Your task to perform on an android device: turn off airplane mode Image 0: 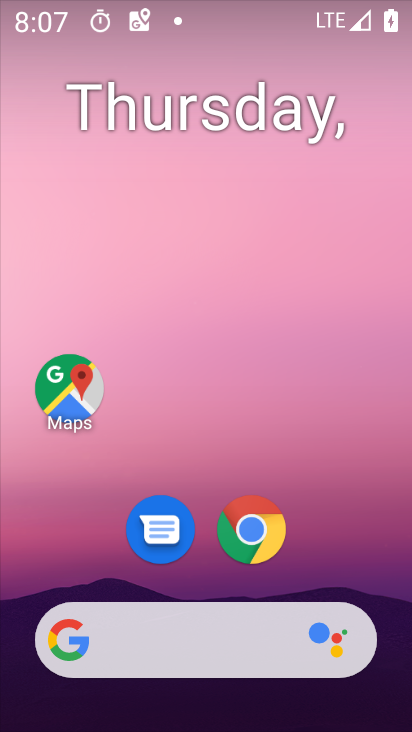
Step 0: drag from (377, 571) to (376, 232)
Your task to perform on an android device: turn off airplane mode Image 1: 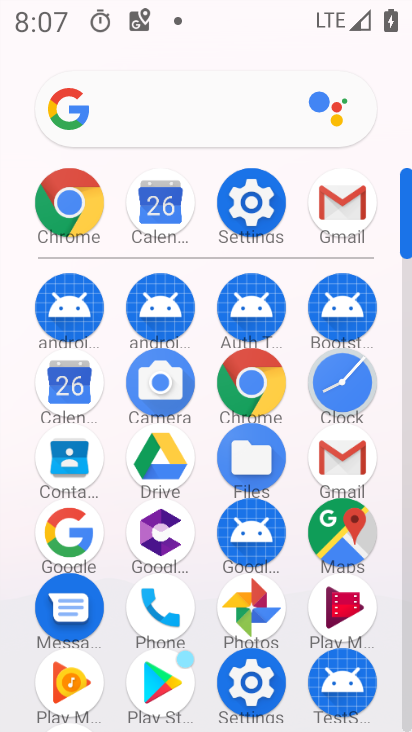
Step 1: click (256, 221)
Your task to perform on an android device: turn off airplane mode Image 2: 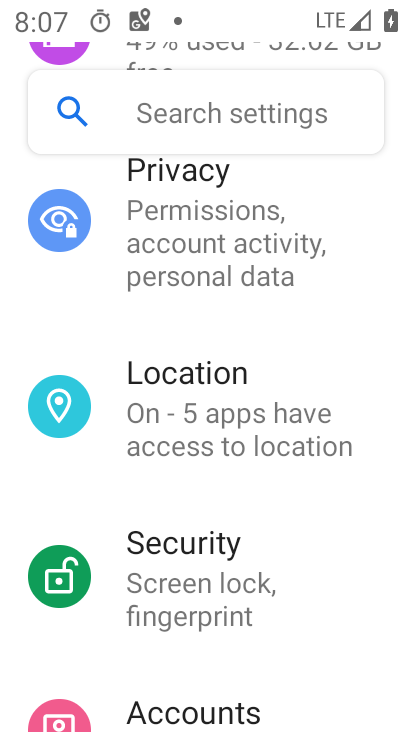
Step 2: drag from (364, 212) to (357, 355)
Your task to perform on an android device: turn off airplane mode Image 3: 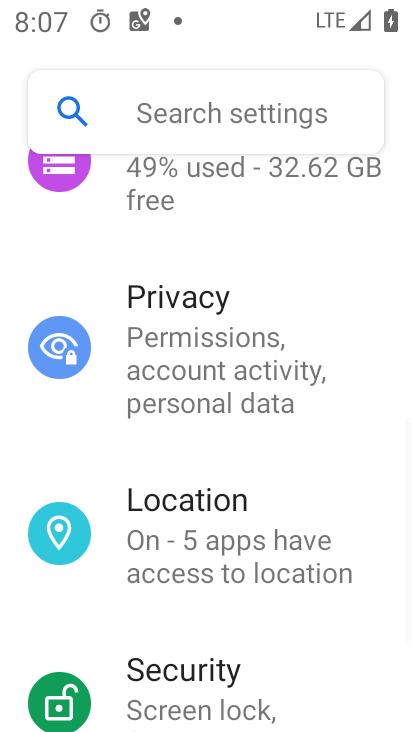
Step 3: drag from (354, 244) to (355, 359)
Your task to perform on an android device: turn off airplane mode Image 4: 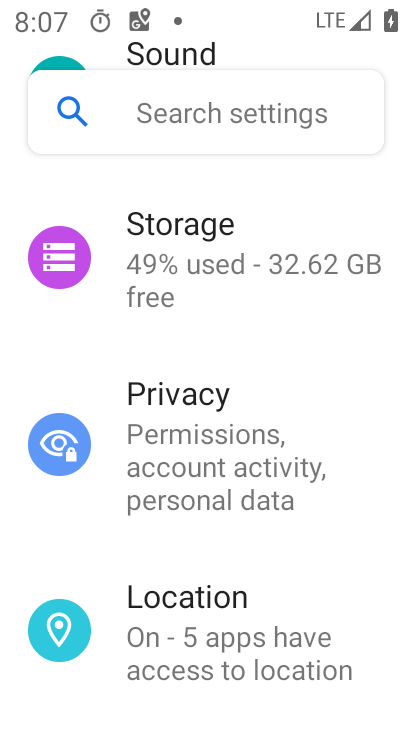
Step 4: drag from (335, 191) to (329, 295)
Your task to perform on an android device: turn off airplane mode Image 5: 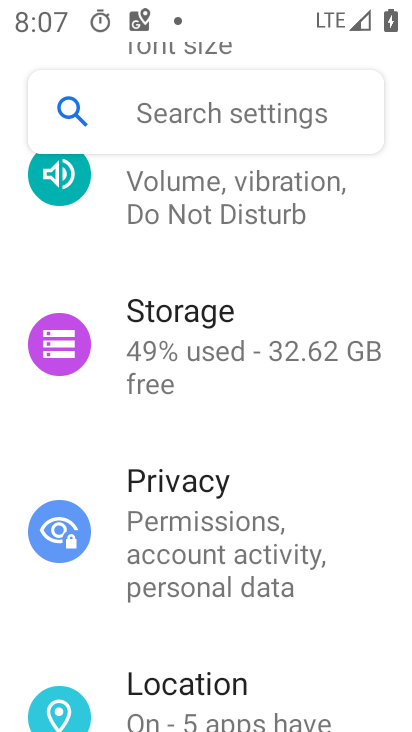
Step 5: drag from (339, 218) to (340, 336)
Your task to perform on an android device: turn off airplane mode Image 6: 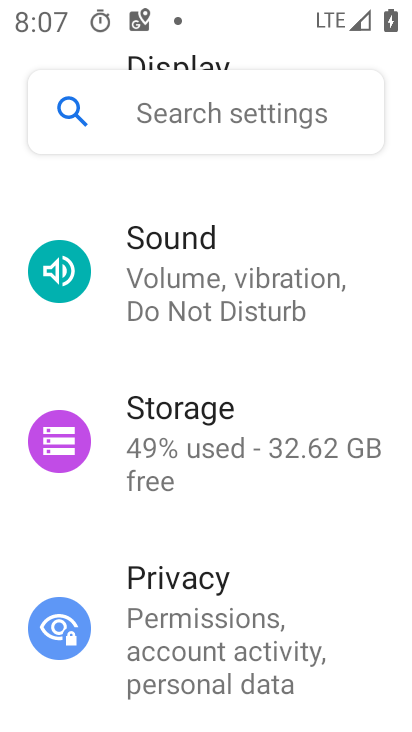
Step 6: drag from (358, 217) to (352, 341)
Your task to perform on an android device: turn off airplane mode Image 7: 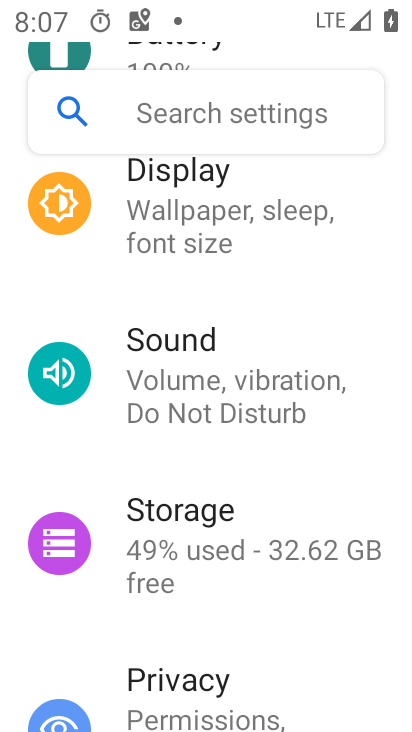
Step 7: drag from (359, 192) to (356, 314)
Your task to perform on an android device: turn off airplane mode Image 8: 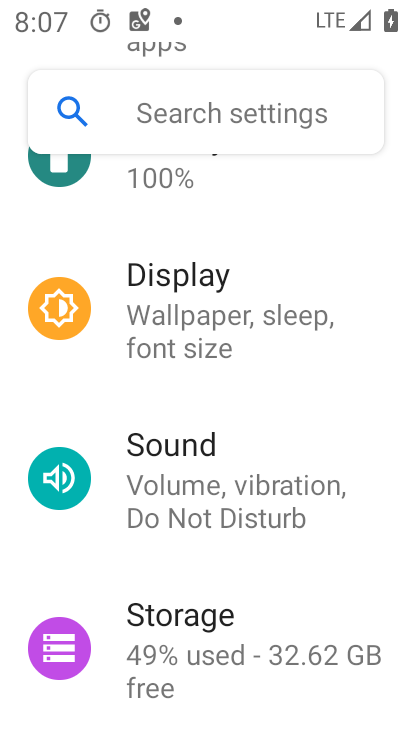
Step 8: drag from (359, 217) to (364, 333)
Your task to perform on an android device: turn off airplane mode Image 9: 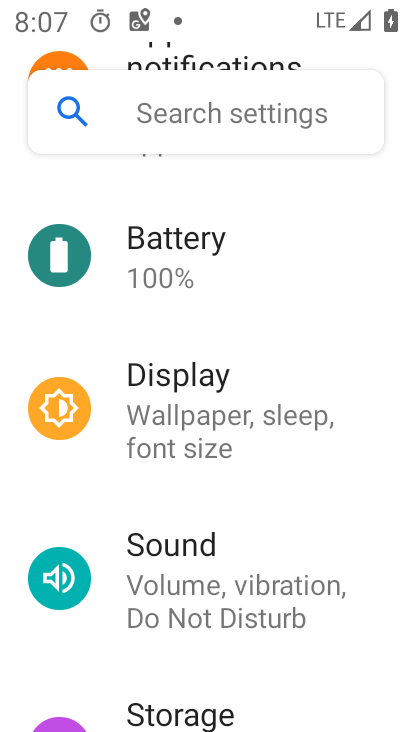
Step 9: drag from (354, 212) to (360, 328)
Your task to perform on an android device: turn off airplane mode Image 10: 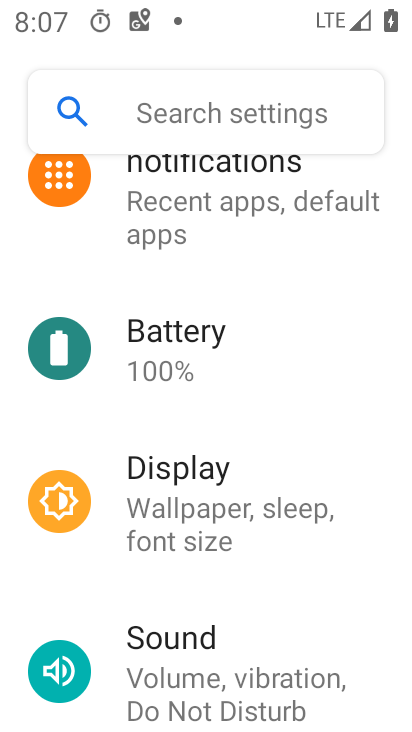
Step 10: drag from (369, 173) to (369, 323)
Your task to perform on an android device: turn off airplane mode Image 11: 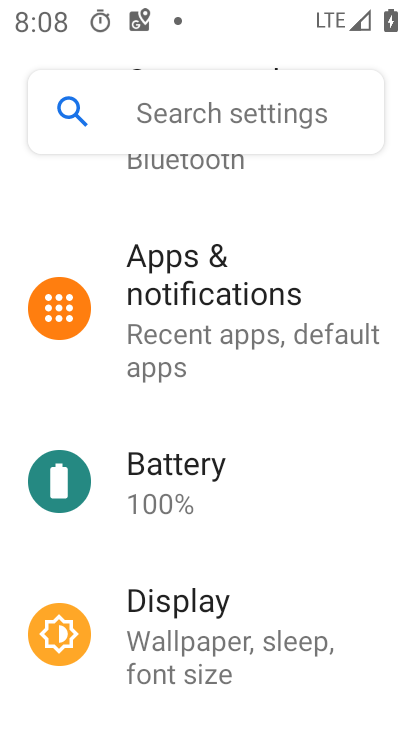
Step 11: drag from (372, 187) to (373, 326)
Your task to perform on an android device: turn off airplane mode Image 12: 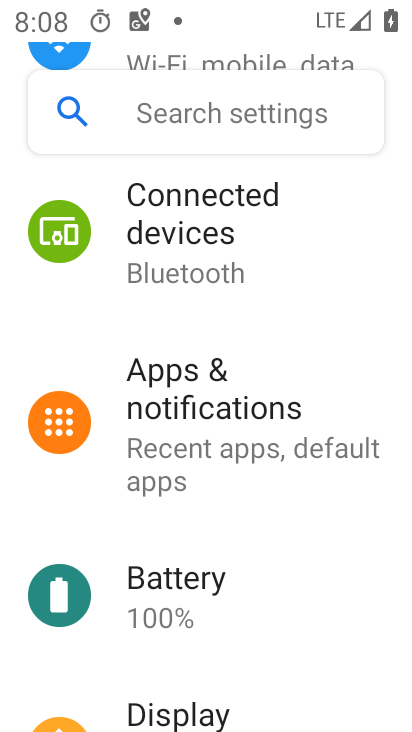
Step 12: drag from (369, 189) to (370, 321)
Your task to perform on an android device: turn off airplane mode Image 13: 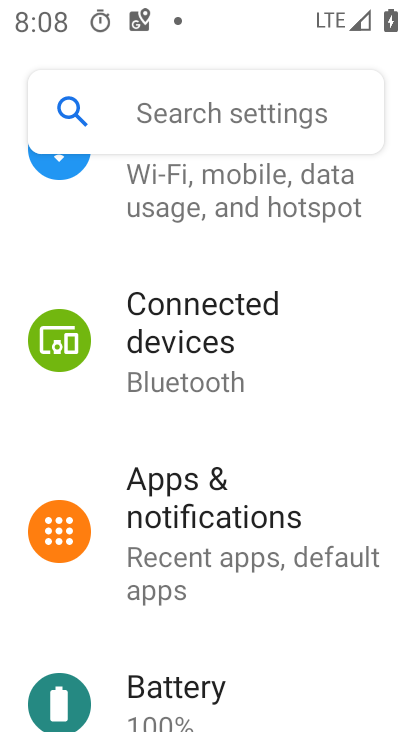
Step 13: drag from (378, 182) to (364, 311)
Your task to perform on an android device: turn off airplane mode Image 14: 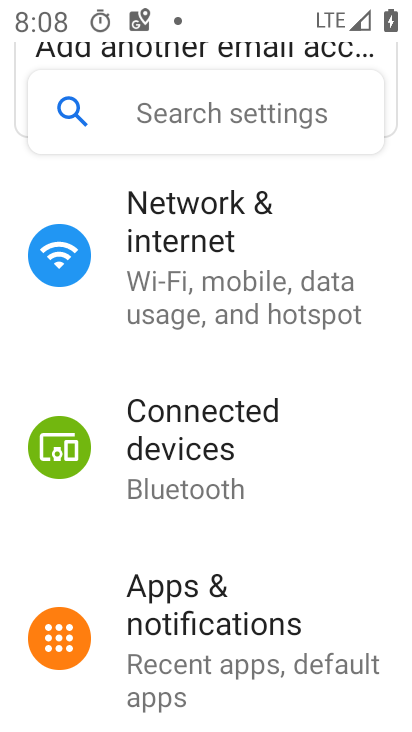
Step 14: drag from (361, 182) to (359, 283)
Your task to perform on an android device: turn off airplane mode Image 15: 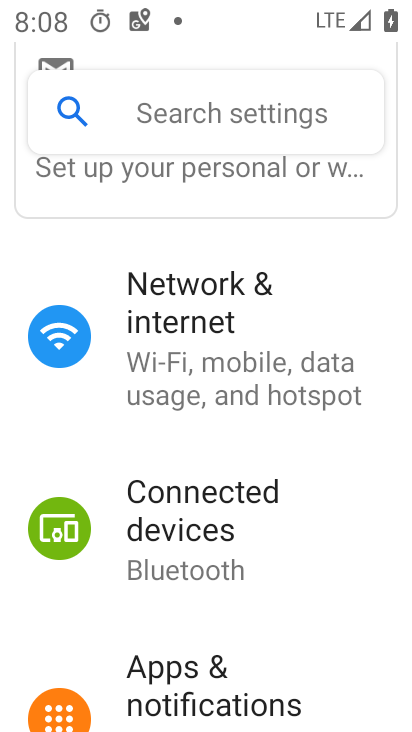
Step 15: click (216, 328)
Your task to perform on an android device: turn off airplane mode Image 16: 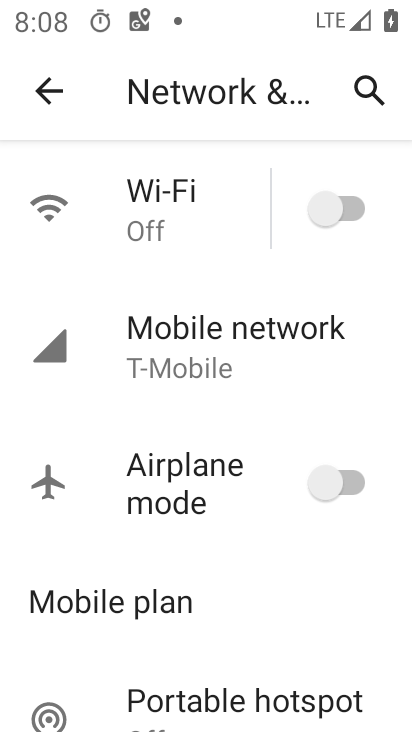
Step 16: task complete